Your task to perform on an android device: find which apps use the phone's location Image 0: 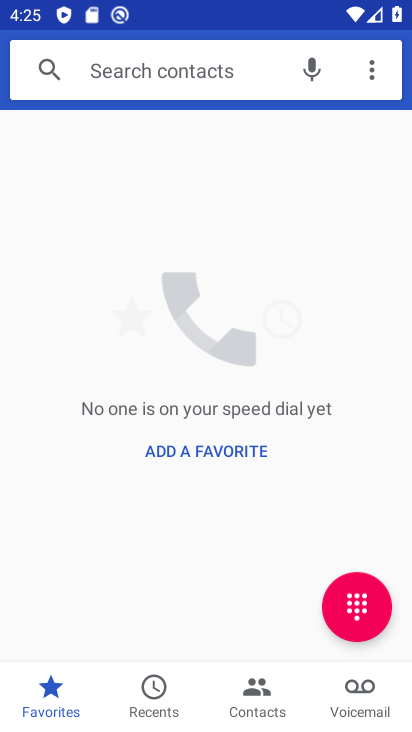
Step 0: press home button
Your task to perform on an android device: find which apps use the phone's location Image 1: 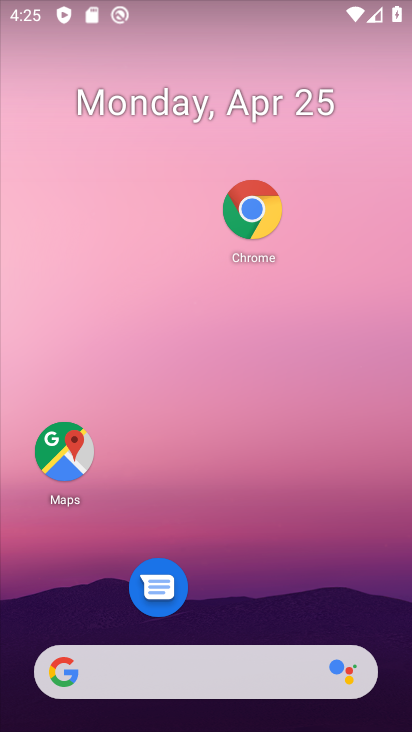
Step 1: drag from (306, 581) to (317, 108)
Your task to perform on an android device: find which apps use the phone's location Image 2: 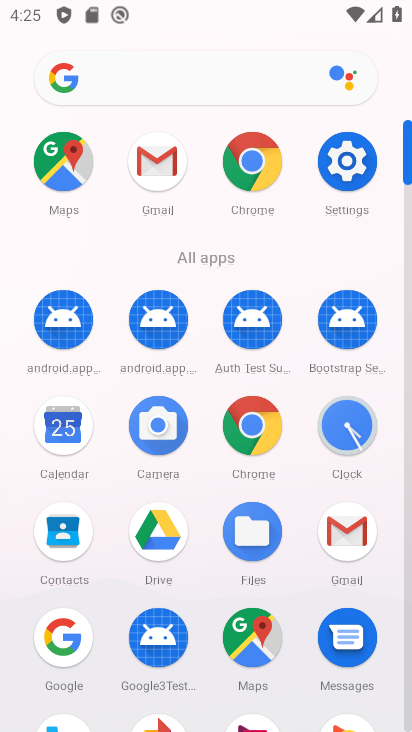
Step 2: click (344, 158)
Your task to perform on an android device: find which apps use the phone's location Image 3: 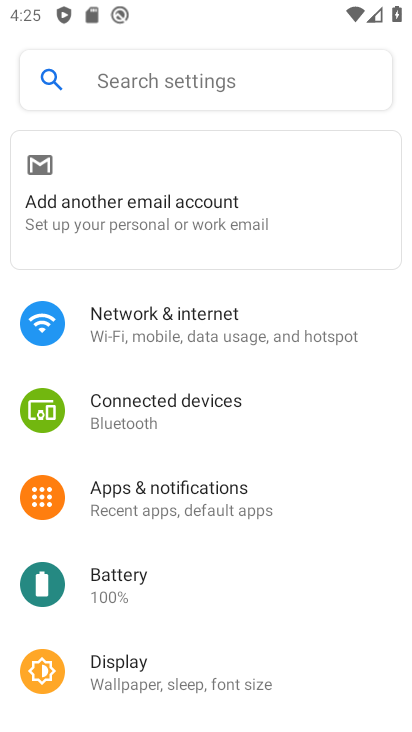
Step 3: drag from (254, 610) to (266, 309)
Your task to perform on an android device: find which apps use the phone's location Image 4: 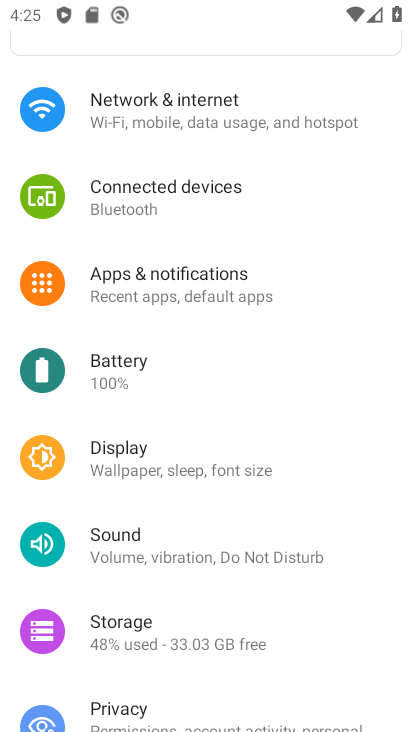
Step 4: drag from (269, 608) to (315, 222)
Your task to perform on an android device: find which apps use the phone's location Image 5: 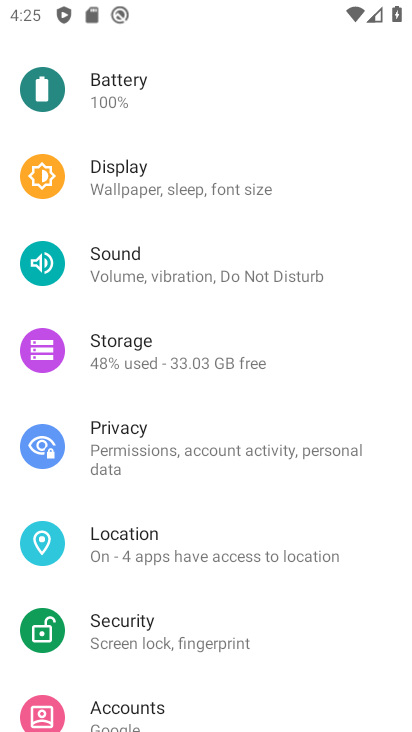
Step 5: click (299, 535)
Your task to perform on an android device: find which apps use the phone's location Image 6: 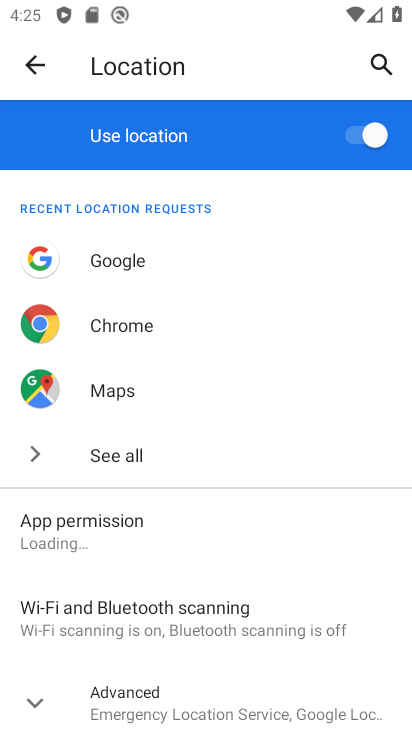
Step 6: click (299, 535)
Your task to perform on an android device: find which apps use the phone's location Image 7: 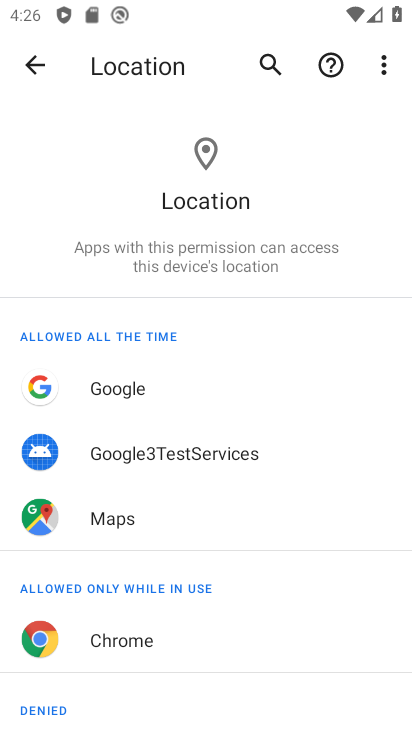
Step 7: task complete